Your task to perform on an android device: toggle show notifications on the lock screen Image 0: 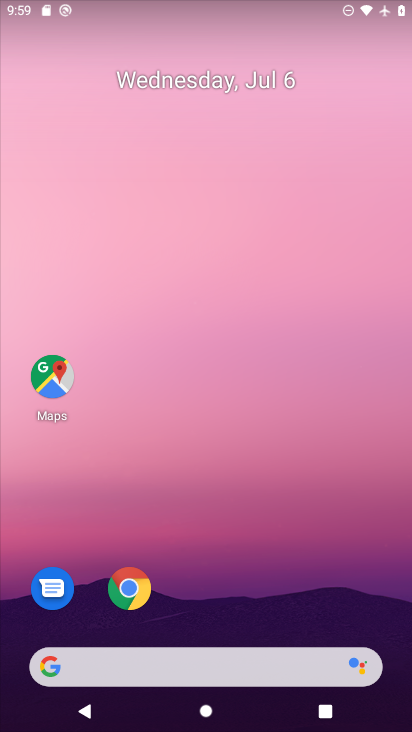
Step 0: drag from (180, 664) to (331, 123)
Your task to perform on an android device: toggle show notifications on the lock screen Image 1: 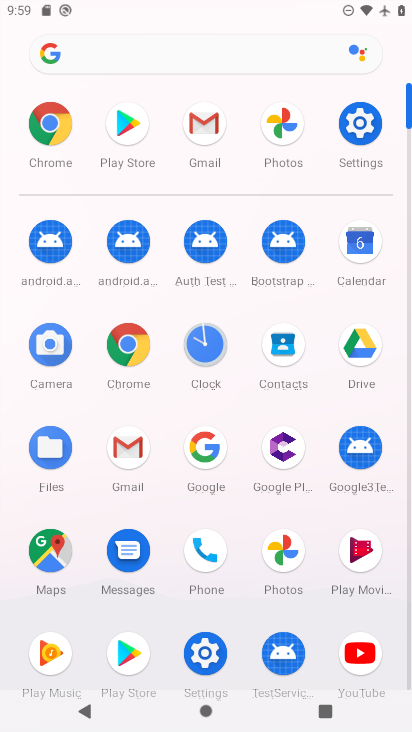
Step 1: click (360, 121)
Your task to perform on an android device: toggle show notifications on the lock screen Image 2: 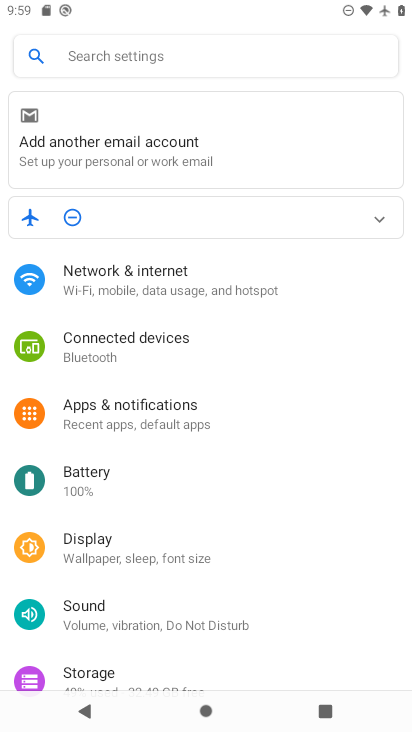
Step 2: click (129, 414)
Your task to perform on an android device: toggle show notifications on the lock screen Image 3: 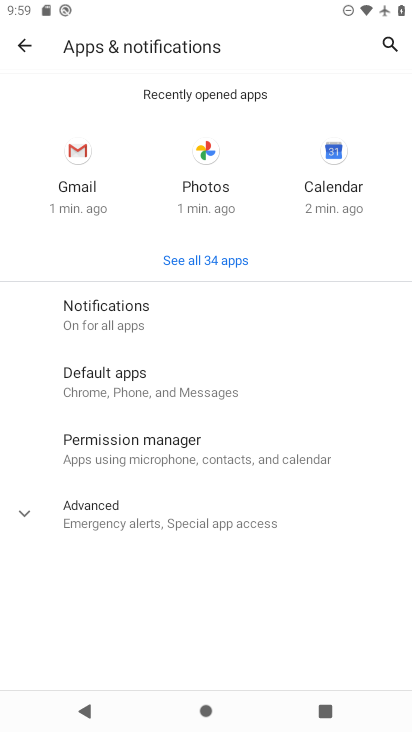
Step 3: click (123, 310)
Your task to perform on an android device: toggle show notifications on the lock screen Image 4: 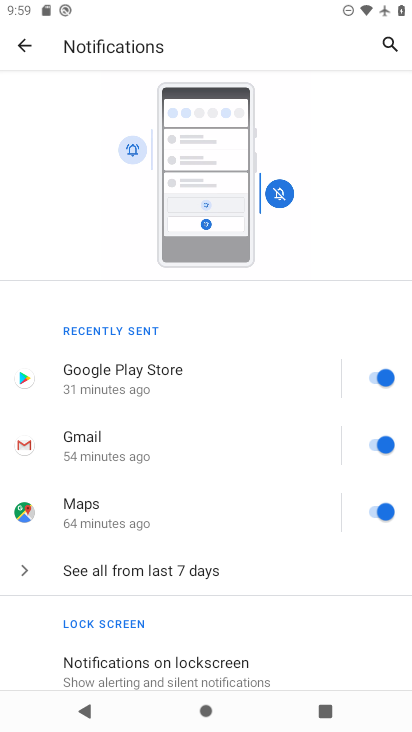
Step 4: drag from (237, 570) to (316, 308)
Your task to perform on an android device: toggle show notifications on the lock screen Image 5: 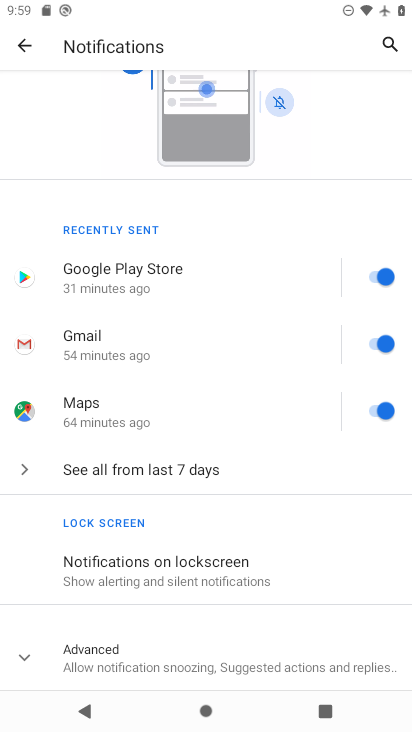
Step 5: click (213, 573)
Your task to perform on an android device: toggle show notifications on the lock screen Image 6: 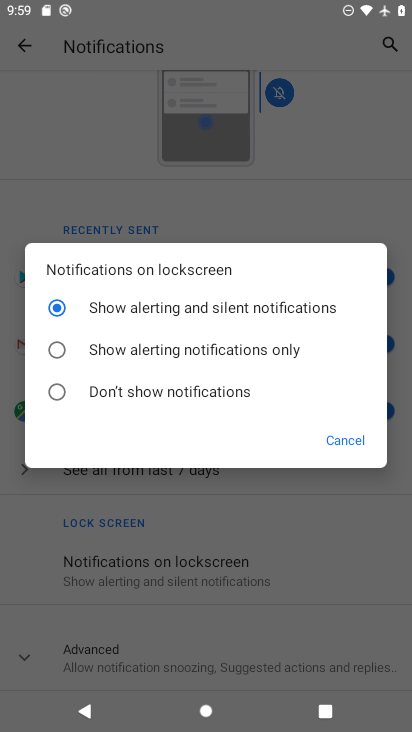
Step 6: click (58, 395)
Your task to perform on an android device: toggle show notifications on the lock screen Image 7: 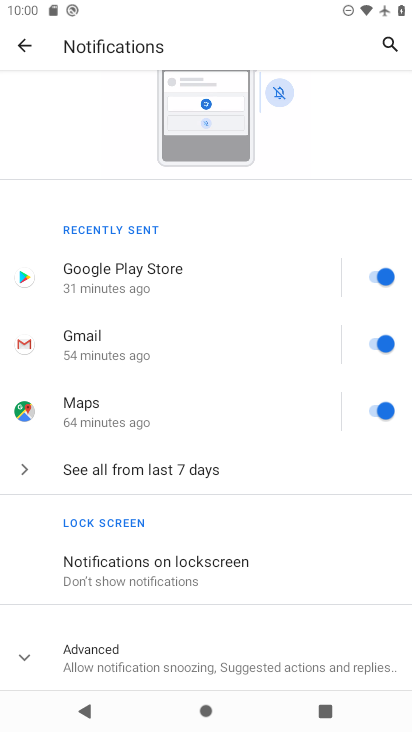
Step 7: task complete